Your task to perform on an android device: Open Reddit.com Image 0: 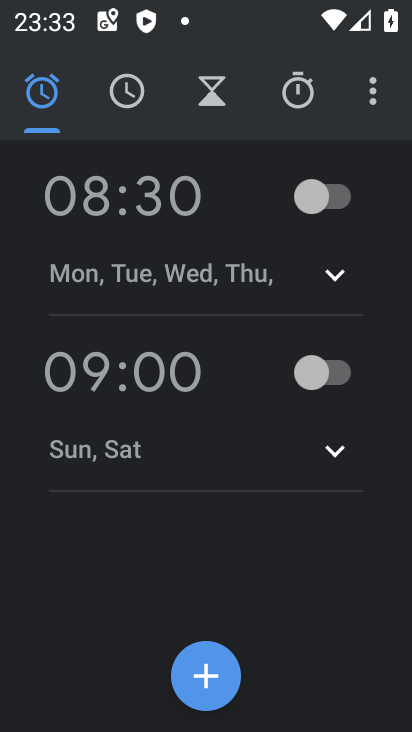
Step 0: task complete